Your task to perform on an android device: turn off priority inbox in the gmail app Image 0: 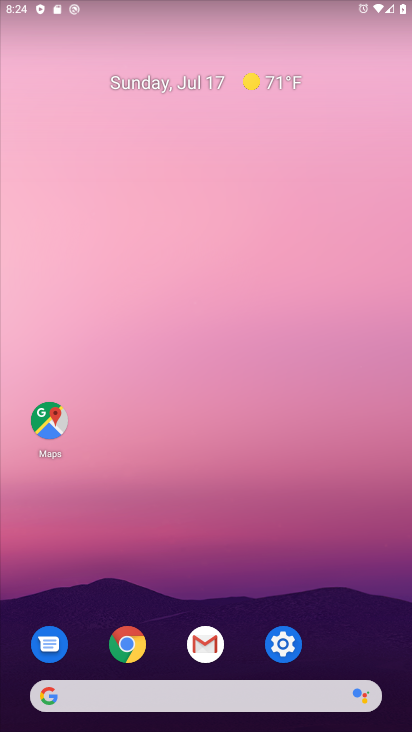
Step 0: press home button
Your task to perform on an android device: turn off priority inbox in the gmail app Image 1: 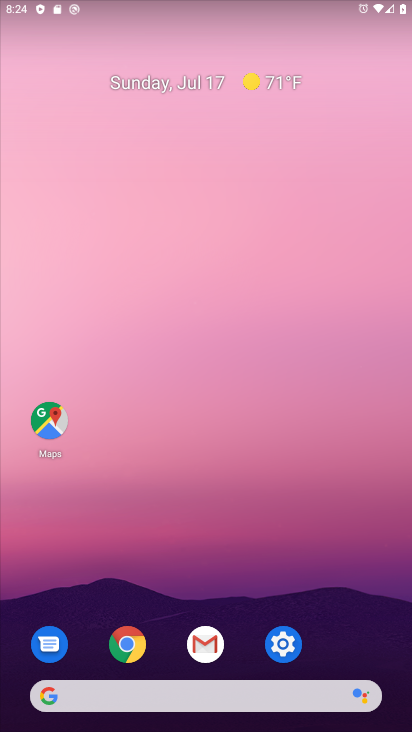
Step 1: click (214, 645)
Your task to perform on an android device: turn off priority inbox in the gmail app Image 2: 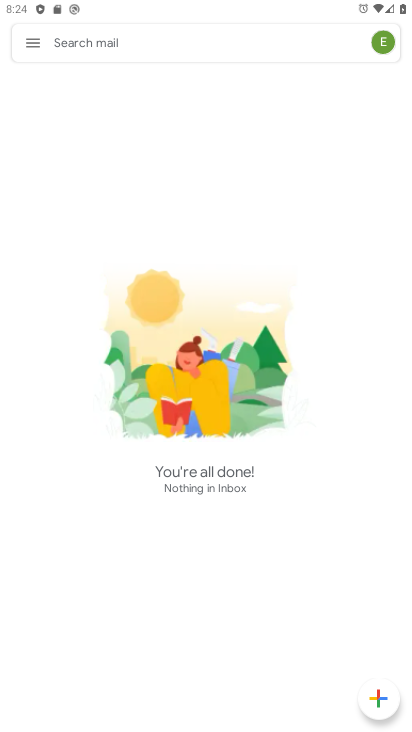
Step 2: click (38, 41)
Your task to perform on an android device: turn off priority inbox in the gmail app Image 3: 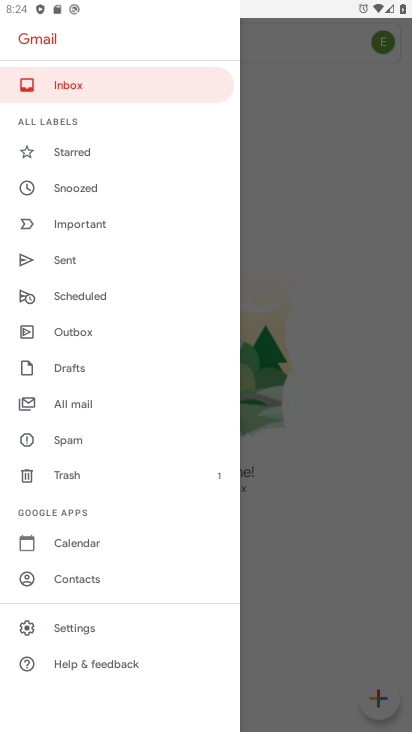
Step 3: click (67, 631)
Your task to perform on an android device: turn off priority inbox in the gmail app Image 4: 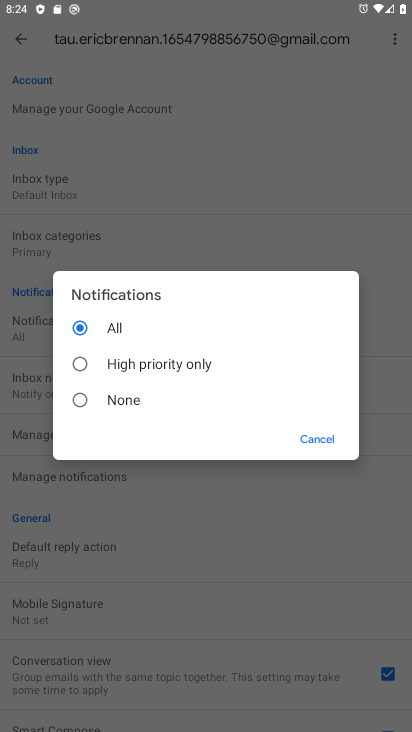
Step 4: click (304, 441)
Your task to perform on an android device: turn off priority inbox in the gmail app Image 5: 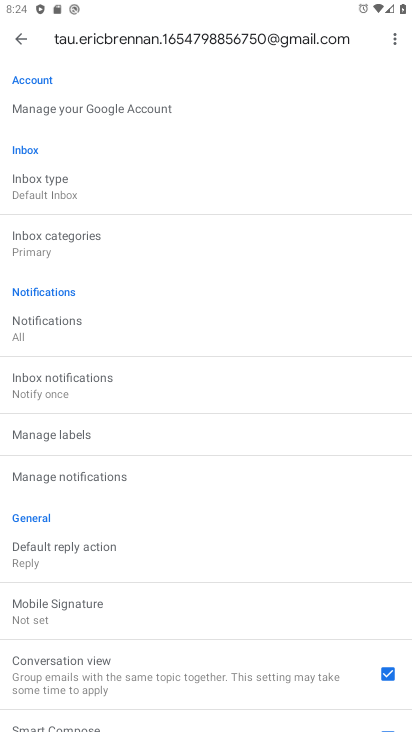
Step 5: click (54, 241)
Your task to perform on an android device: turn off priority inbox in the gmail app Image 6: 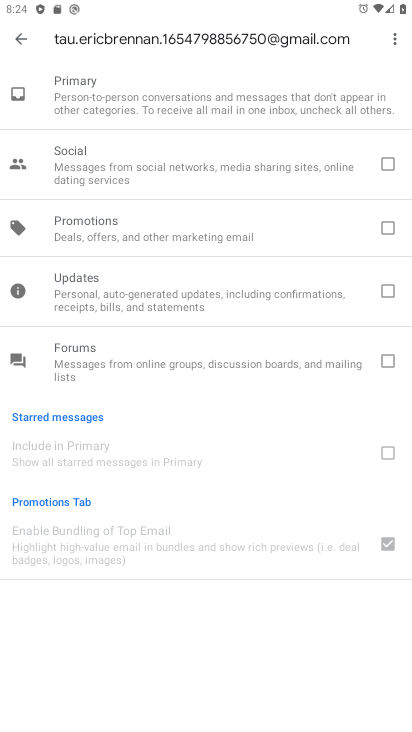
Step 6: click (25, 32)
Your task to perform on an android device: turn off priority inbox in the gmail app Image 7: 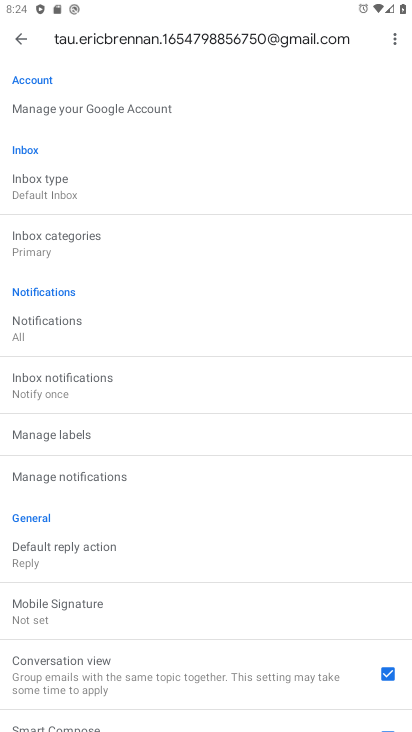
Step 7: click (36, 168)
Your task to perform on an android device: turn off priority inbox in the gmail app Image 8: 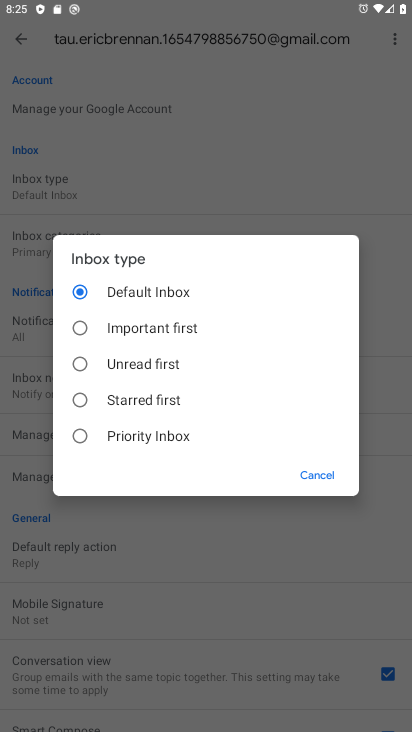
Step 8: task complete